Your task to perform on an android device: turn vacation reply on in the gmail app Image 0: 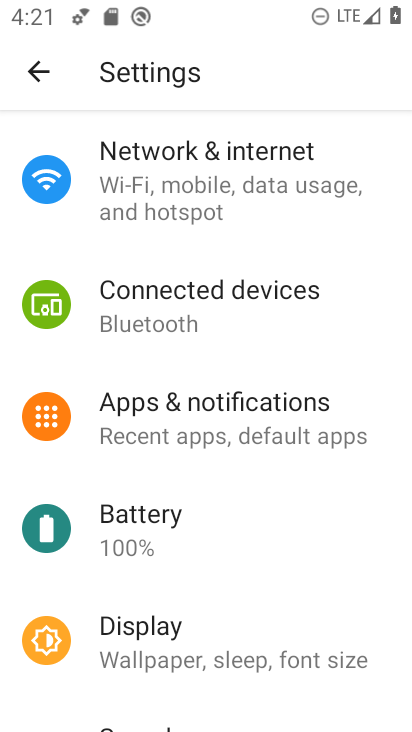
Step 0: press home button
Your task to perform on an android device: turn vacation reply on in the gmail app Image 1: 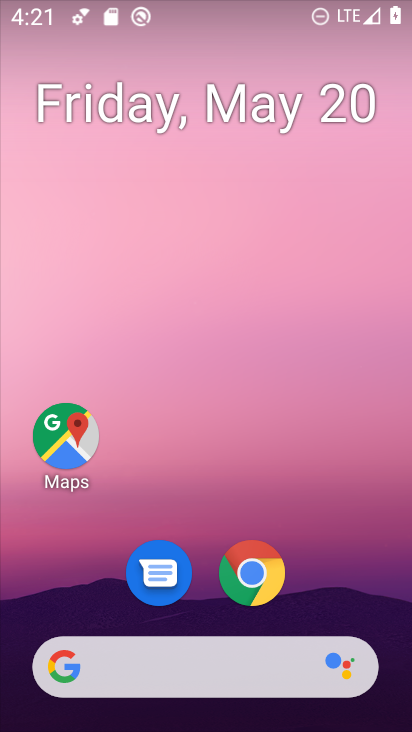
Step 1: drag from (373, 584) to (255, 227)
Your task to perform on an android device: turn vacation reply on in the gmail app Image 2: 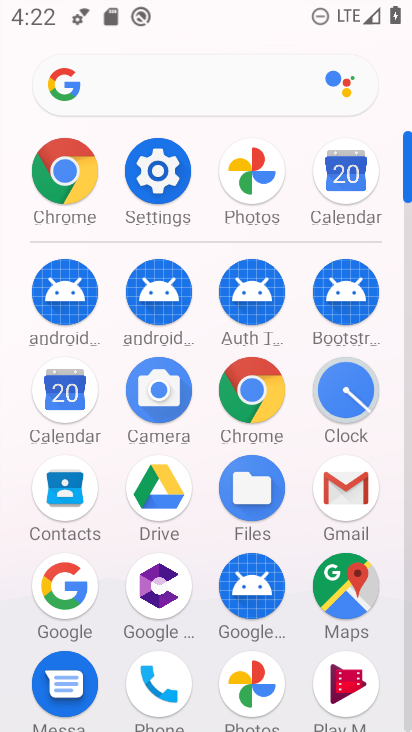
Step 2: click (373, 492)
Your task to perform on an android device: turn vacation reply on in the gmail app Image 3: 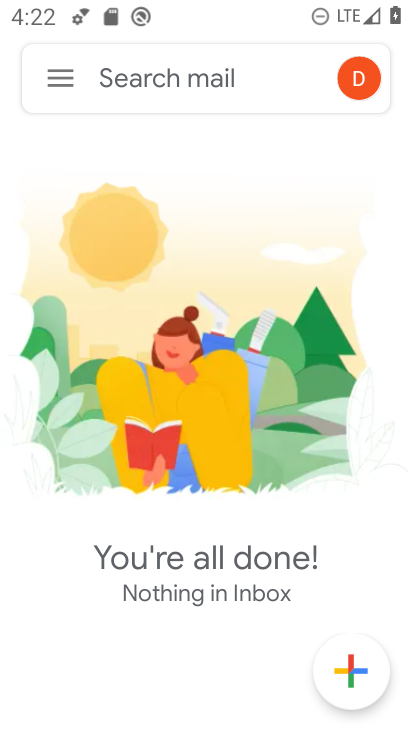
Step 3: click (67, 92)
Your task to perform on an android device: turn vacation reply on in the gmail app Image 4: 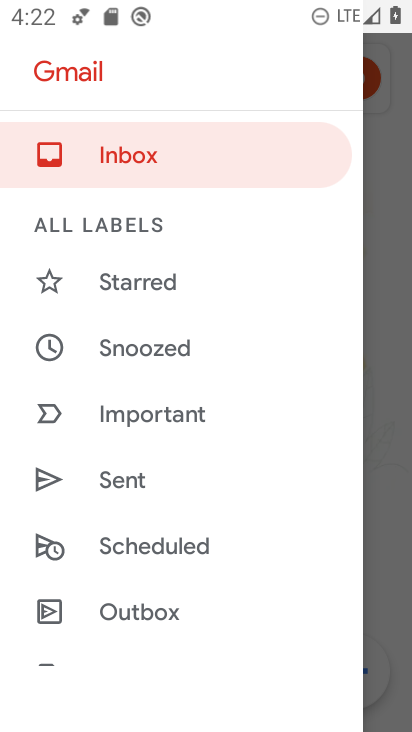
Step 4: drag from (173, 647) to (188, 200)
Your task to perform on an android device: turn vacation reply on in the gmail app Image 5: 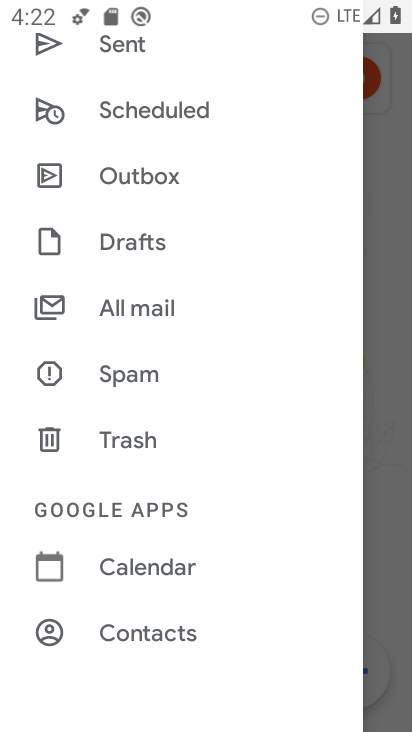
Step 5: drag from (203, 617) to (162, 274)
Your task to perform on an android device: turn vacation reply on in the gmail app Image 6: 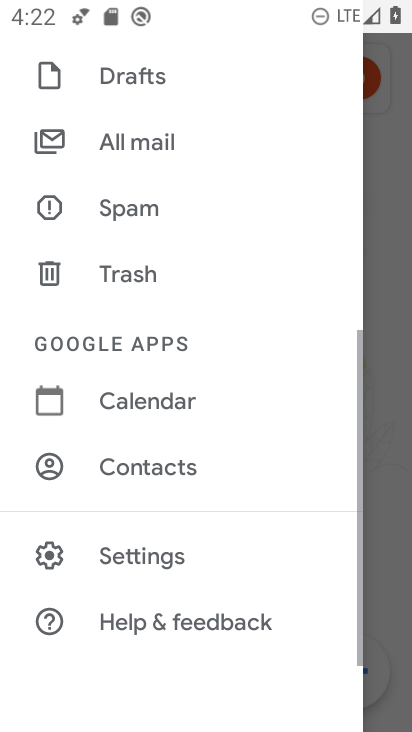
Step 6: click (188, 563)
Your task to perform on an android device: turn vacation reply on in the gmail app Image 7: 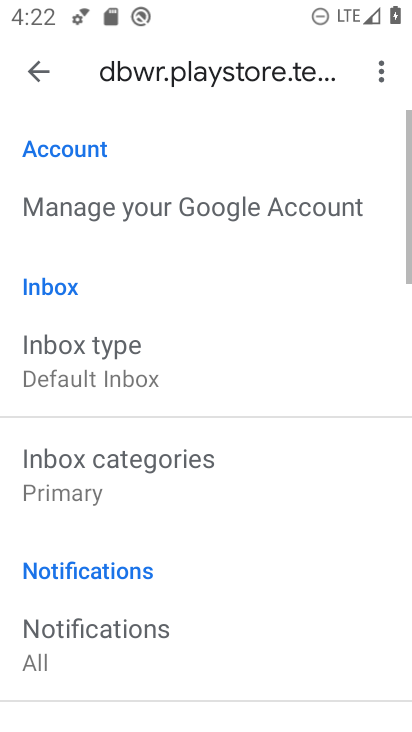
Step 7: drag from (217, 627) to (181, 106)
Your task to perform on an android device: turn vacation reply on in the gmail app Image 8: 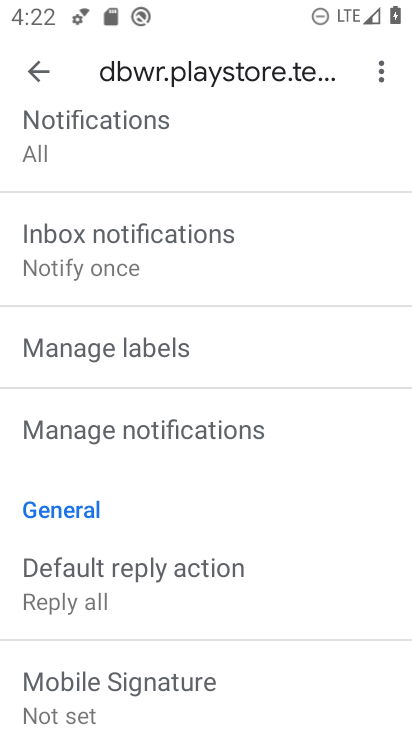
Step 8: drag from (245, 574) to (136, 107)
Your task to perform on an android device: turn vacation reply on in the gmail app Image 9: 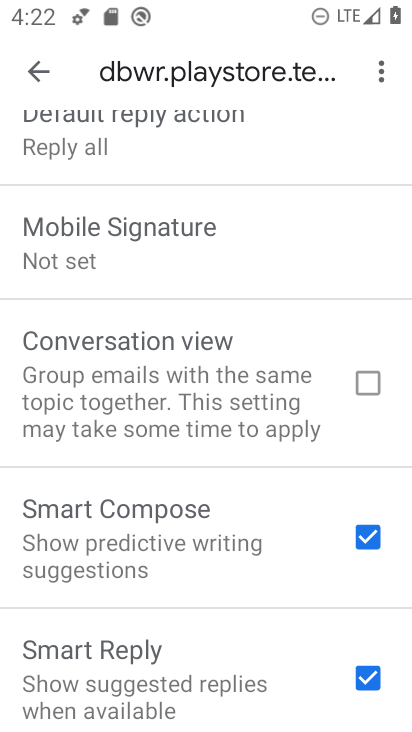
Step 9: drag from (189, 621) to (184, 213)
Your task to perform on an android device: turn vacation reply on in the gmail app Image 10: 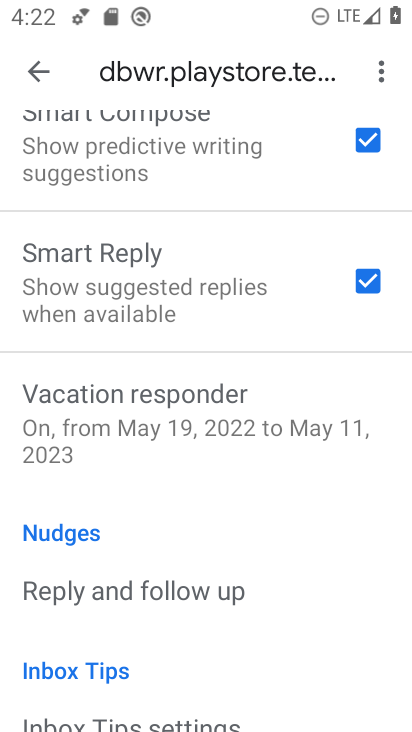
Step 10: click (235, 378)
Your task to perform on an android device: turn vacation reply on in the gmail app Image 11: 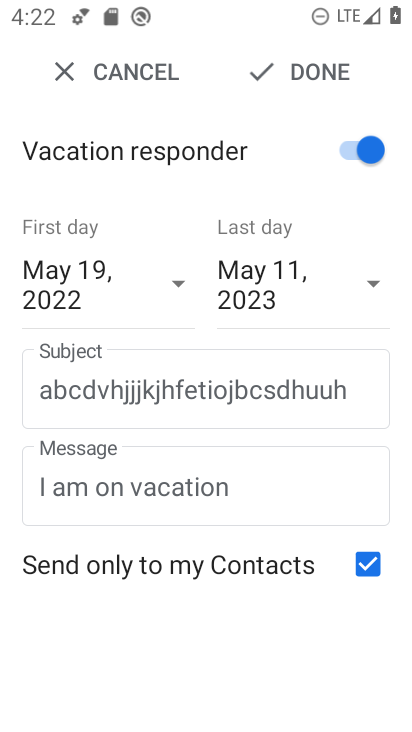
Step 11: click (357, 387)
Your task to perform on an android device: turn vacation reply on in the gmail app Image 12: 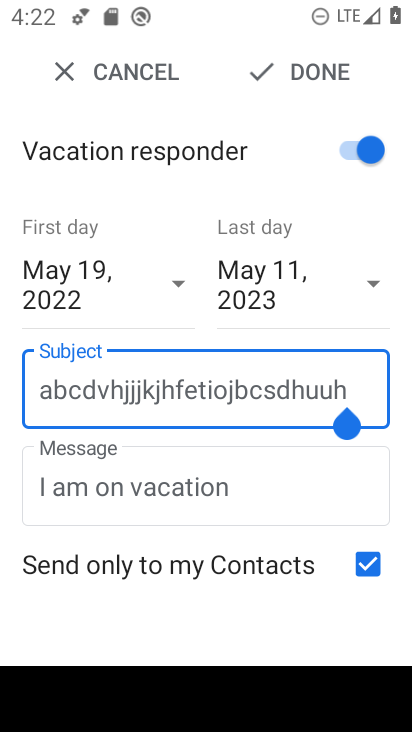
Step 12: type "m"
Your task to perform on an android device: turn vacation reply on in the gmail app Image 13: 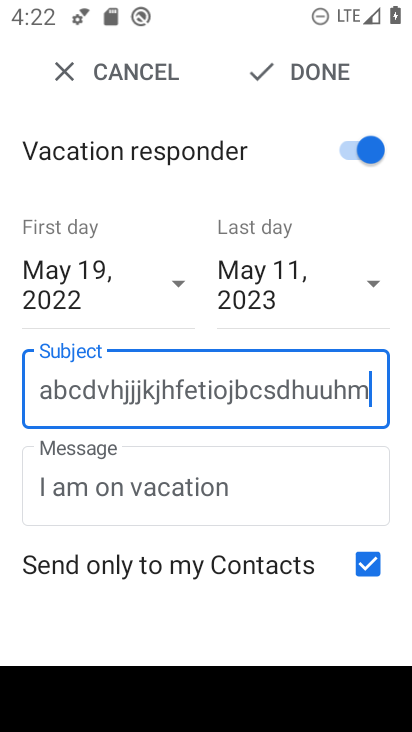
Step 13: click (334, 62)
Your task to perform on an android device: turn vacation reply on in the gmail app Image 14: 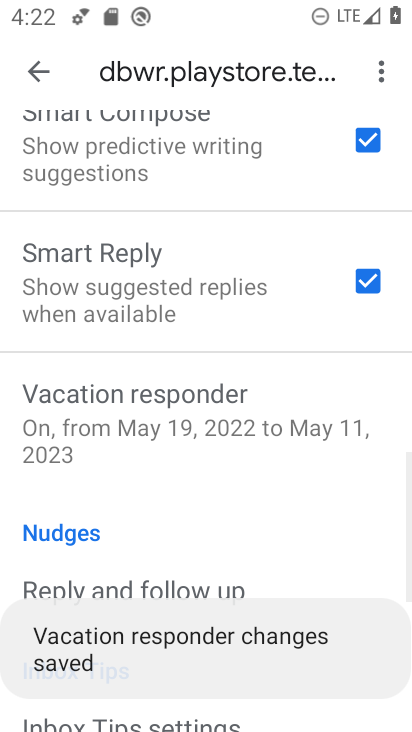
Step 14: task complete